Your task to perform on an android device: What's the news about the US economy? Image 0: 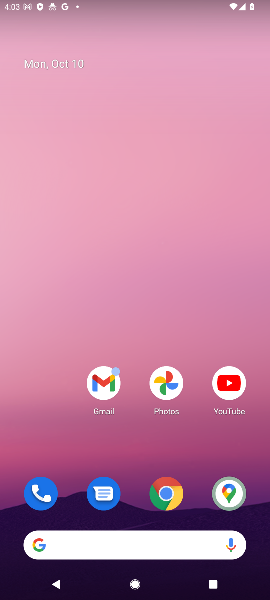
Step 0: click (130, 551)
Your task to perform on an android device: What's the news about the US economy? Image 1: 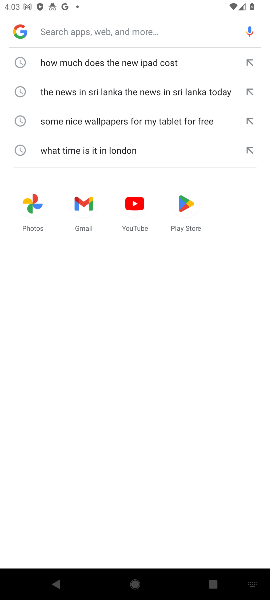
Step 1: type " the news about the US economy"
Your task to perform on an android device: What's the news about the US economy? Image 2: 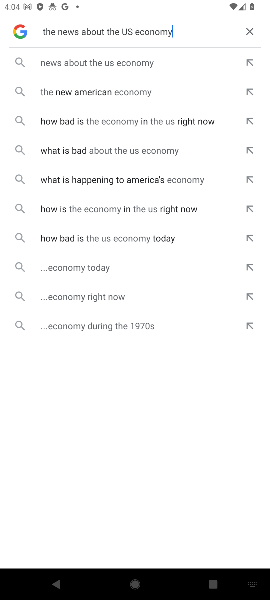
Step 2: click (86, 67)
Your task to perform on an android device: What's the news about the US economy? Image 3: 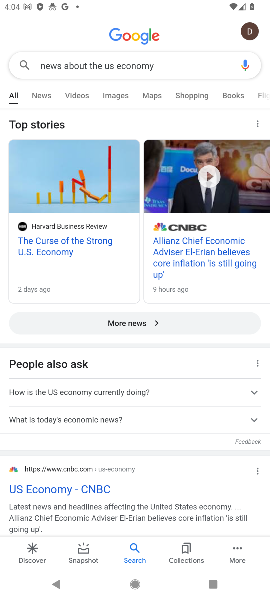
Step 3: task complete